Your task to perform on an android device: Go to display settings Image 0: 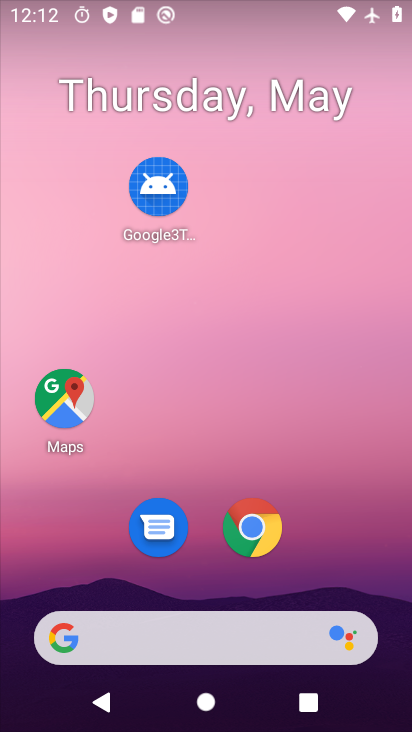
Step 0: press home button
Your task to perform on an android device: Go to display settings Image 1: 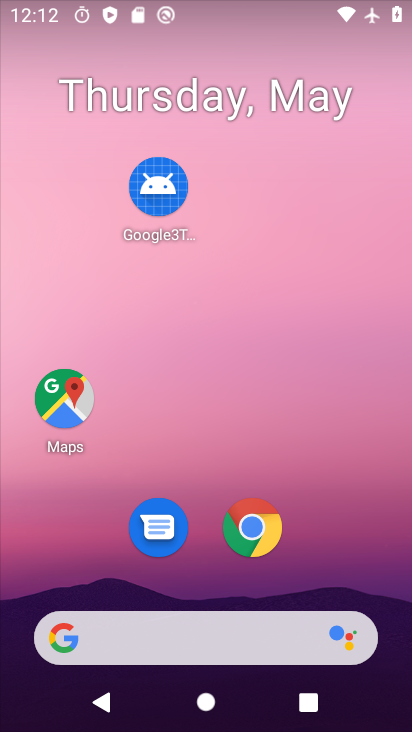
Step 1: drag from (205, 582) to (266, 101)
Your task to perform on an android device: Go to display settings Image 2: 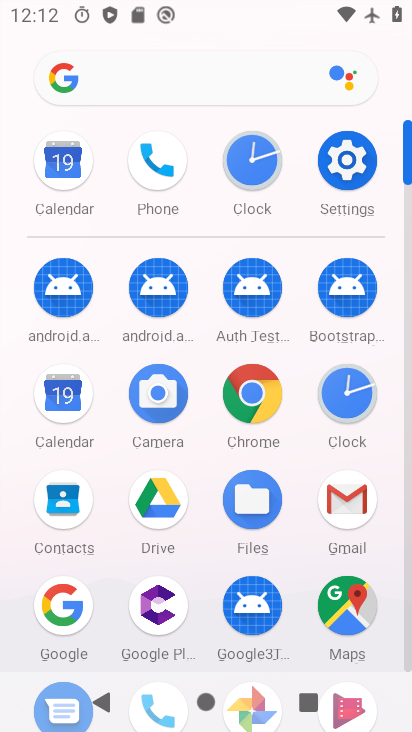
Step 2: click (340, 153)
Your task to perform on an android device: Go to display settings Image 3: 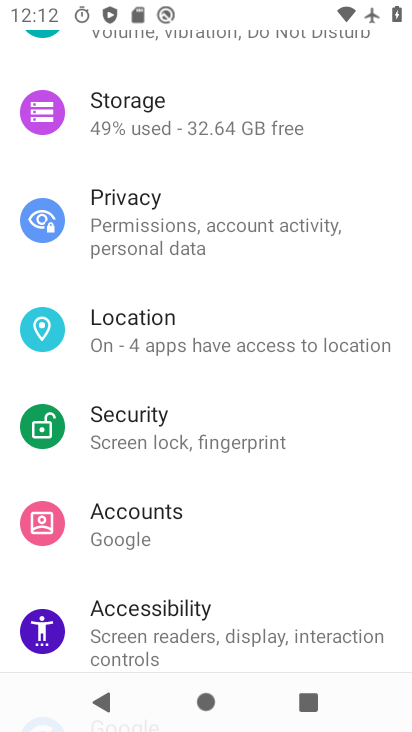
Step 3: drag from (188, 90) to (197, 672)
Your task to perform on an android device: Go to display settings Image 4: 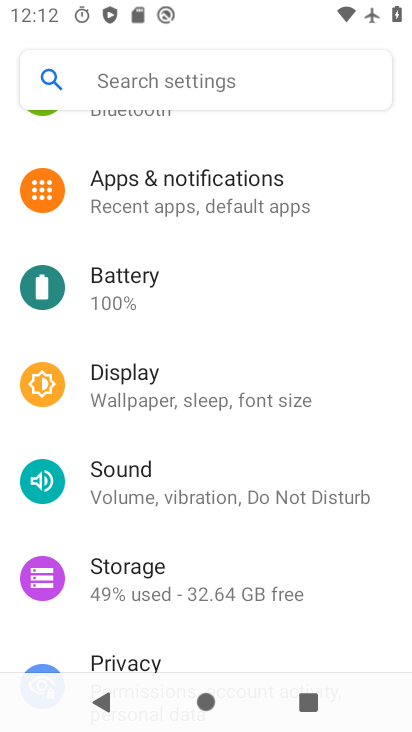
Step 4: click (173, 375)
Your task to perform on an android device: Go to display settings Image 5: 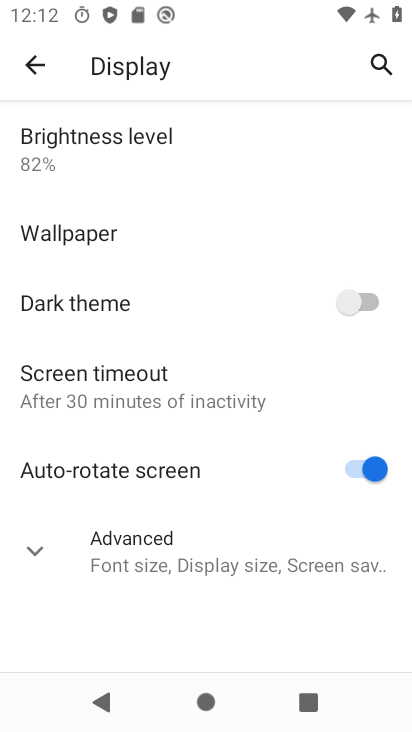
Step 5: click (34, 548)
Your task to perform on an android device: Go to display settings Image 6: 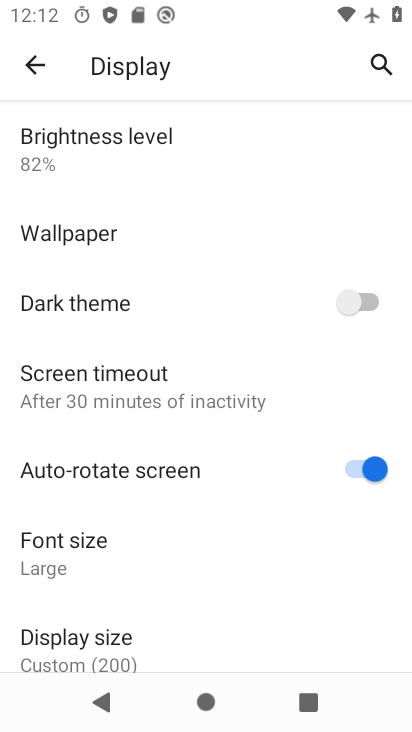
Step 6: task complete